Your task to perform on an android device: Show me popular videos on Youtube Image 0: 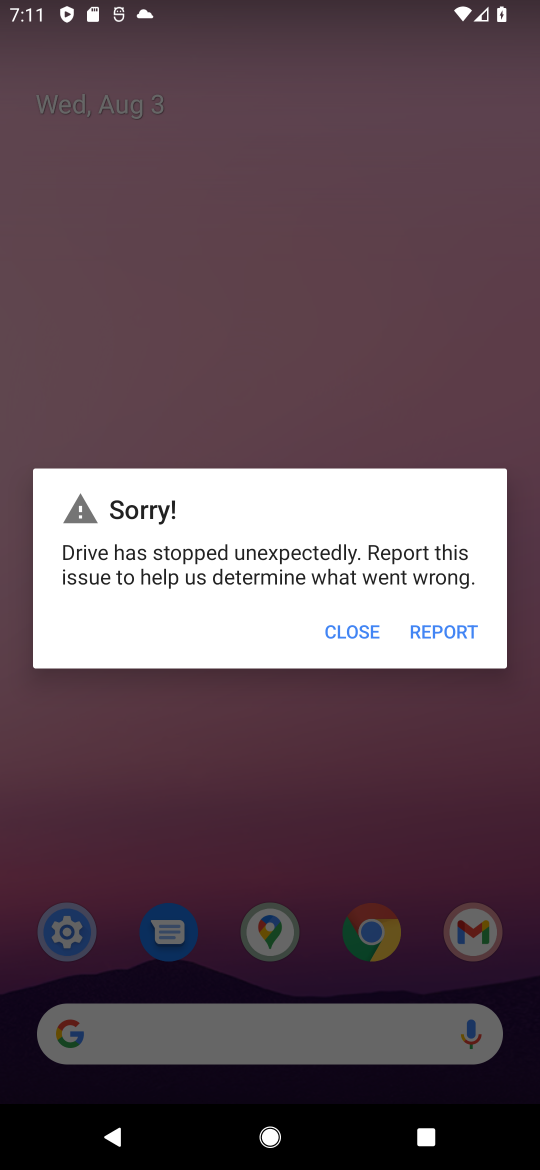
Step 0: press home button
Your task to perform on an android device: Show me popular videos on Youtube Image 1: 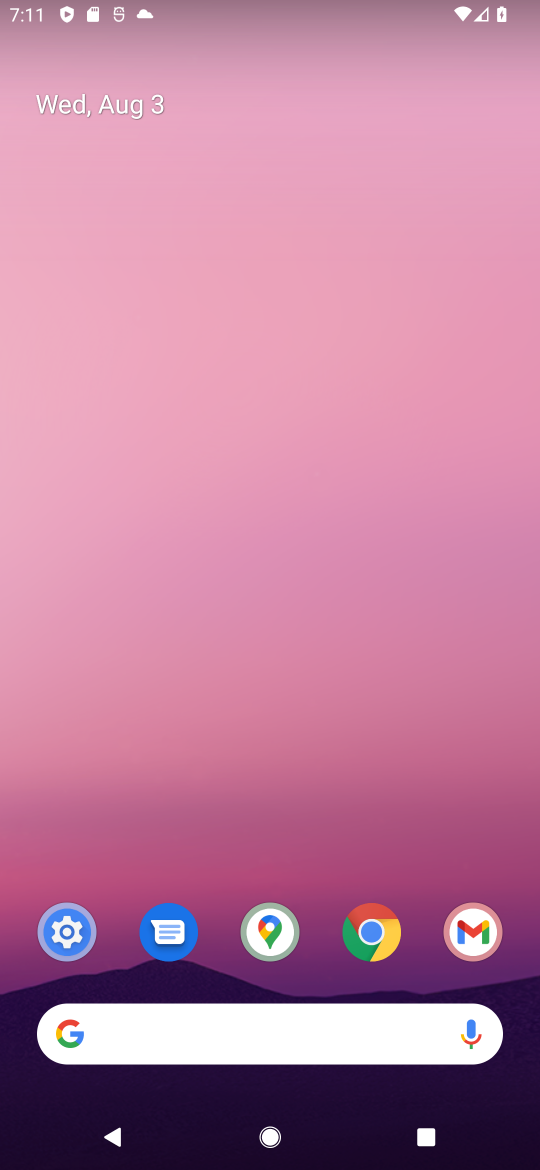
Step 1: drag from (175, 1099) to (184, 31)
Your task to perform on an android device: Show me popular videos on Youtube Image 2: 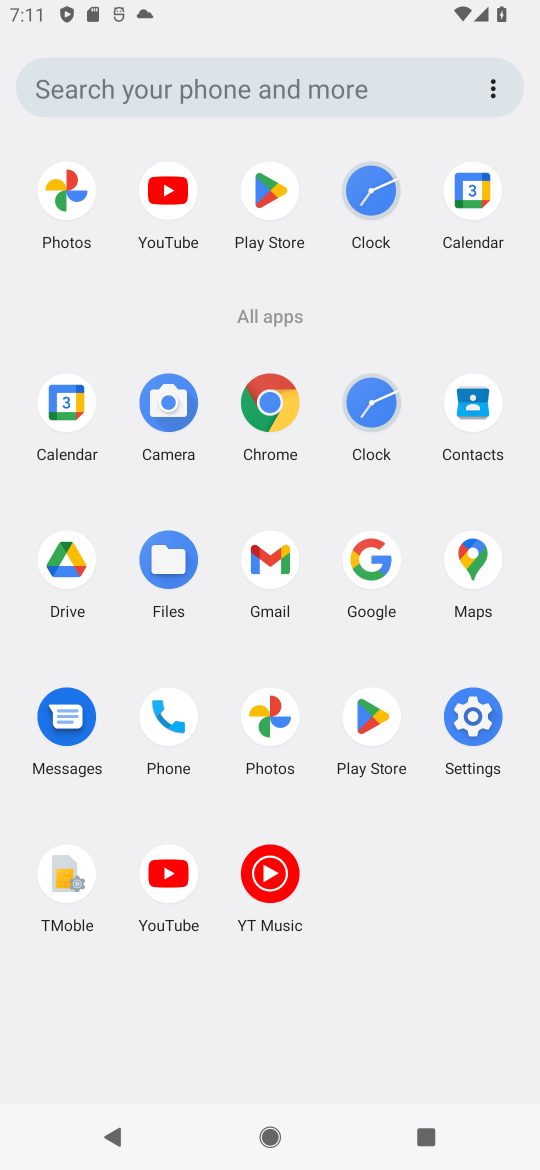
Step 2: click (256, 881)
Your task to perform on an android device: Show me popular videos on Youtube Image 3: 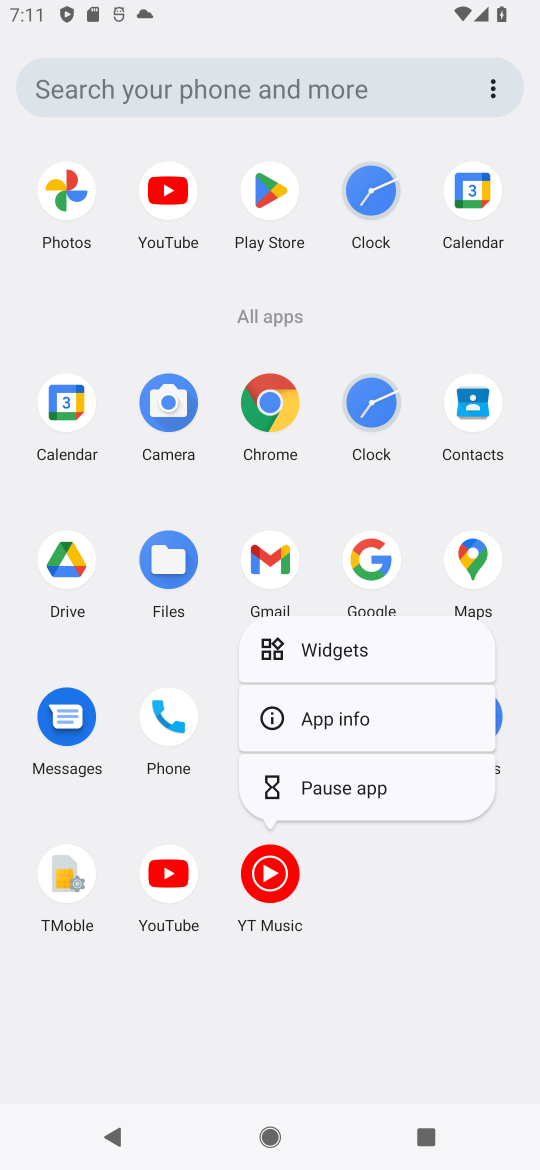
Step 3: click (167, 880)
Your task to perform on an android device: Show me popular videos on Youtube Image 4: 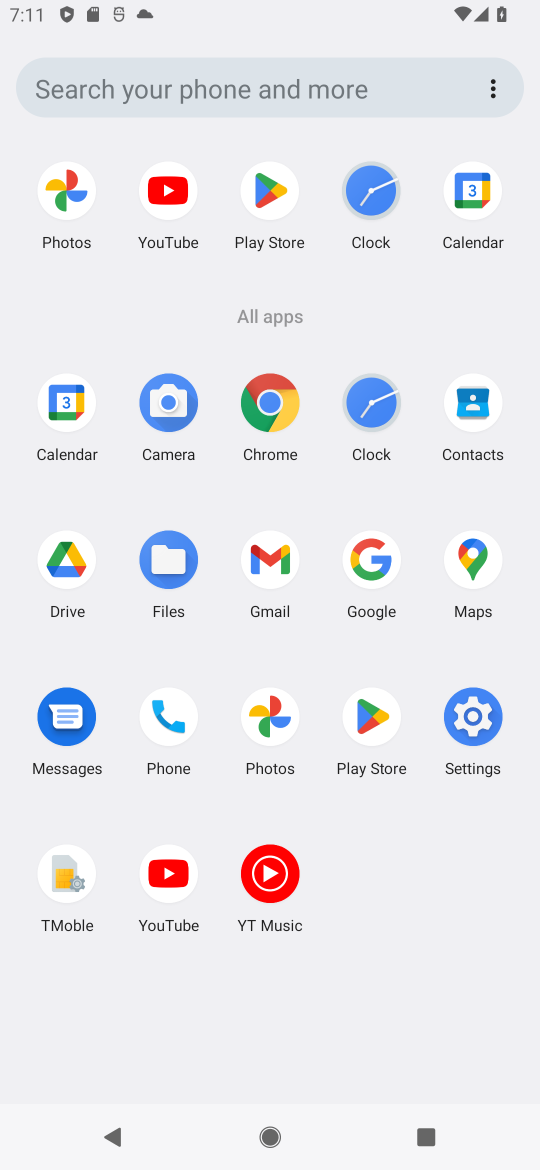
Step 4: click (167, 880)
Your task to perform on an android device: Show me popular videos on Youtube Image 5: 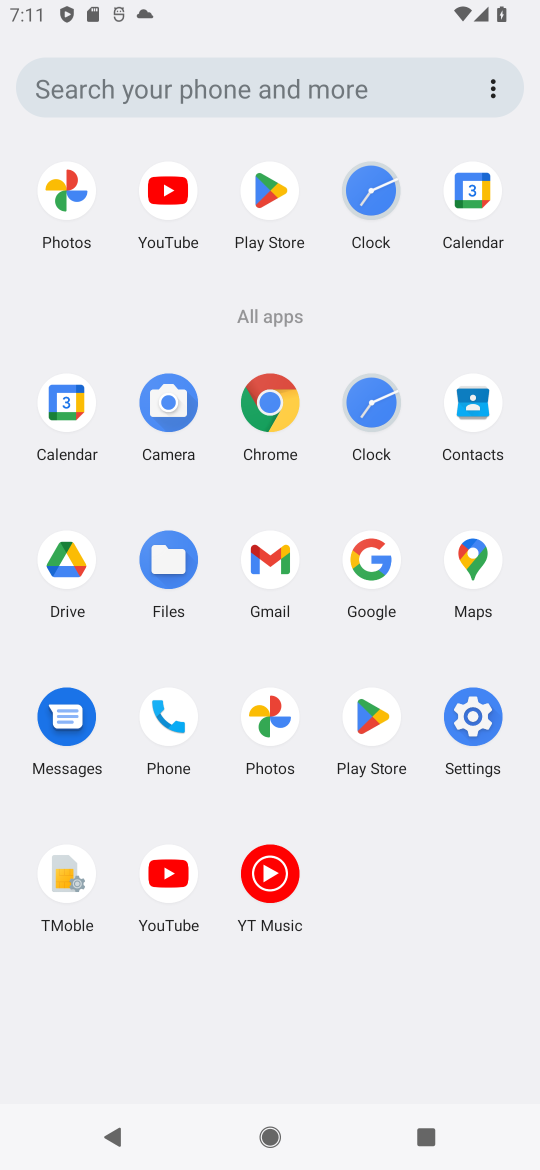
Step 5: click (167, 880)
Your task to perform on an android device: Show me popular videos on Youtube Image 6: 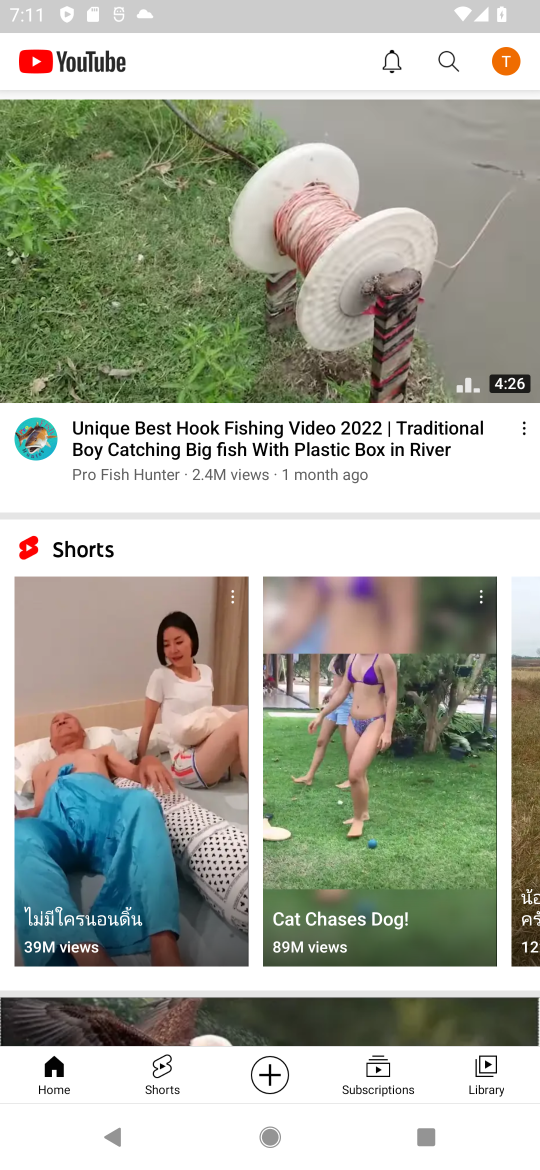
Step 6: task complete